Your task to perform on an android device: Open Google Maps and go to "Timeline" Image 0: 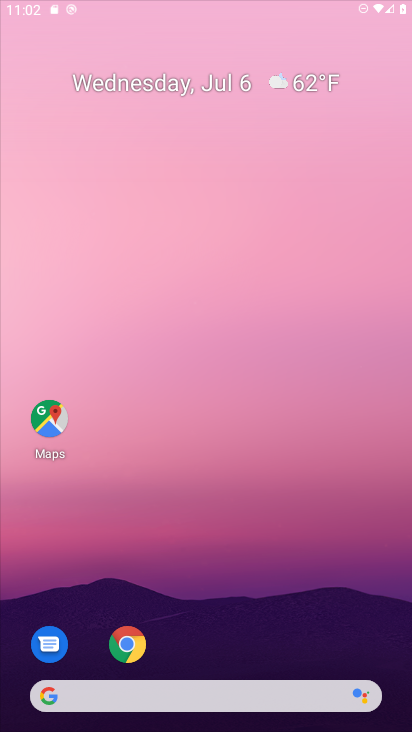
Step 0: press home button
Your task to perform on an android device: Open Google Maps and go to "Timeline" Image 1: 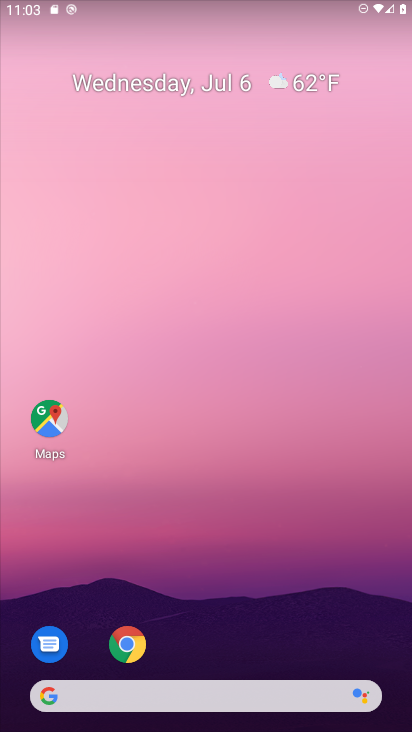
Step 1: drag from (262, 650) to (308, 6)
Your task to perform on an android device: Open Google Maps and go to "Timeline" Image 2: 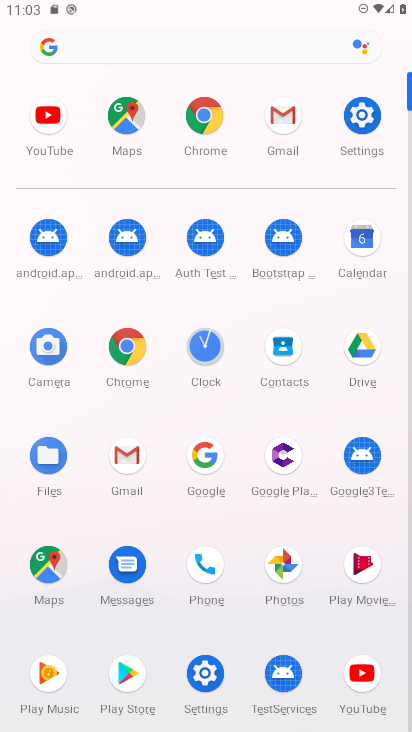
Step 2: click (124, 113)
Your task to perform on an android device: Open Google Maps and go to "Timeline" Image 3: 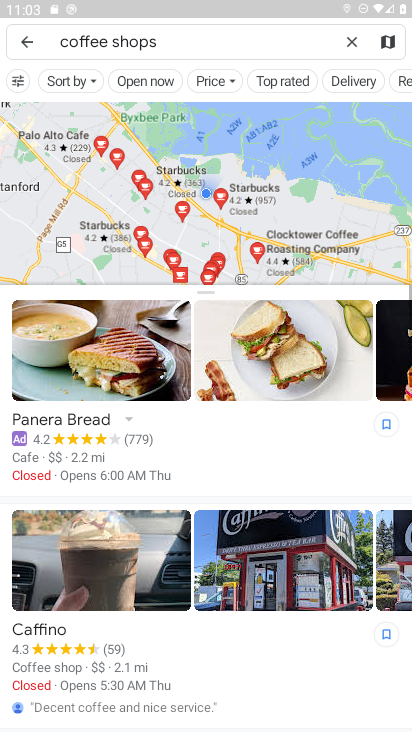
Step 3: click (28, 36)
Your task to perform on an android device: Open Google Maps and go to "Timeline" Image 4: 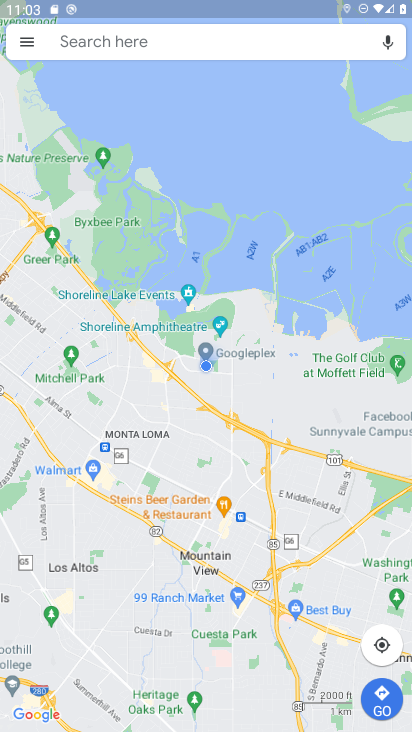
Step 4: click (28, 41)
Your task to perform on an android device: Open Google Maps and go to "Timeline" Image 5: 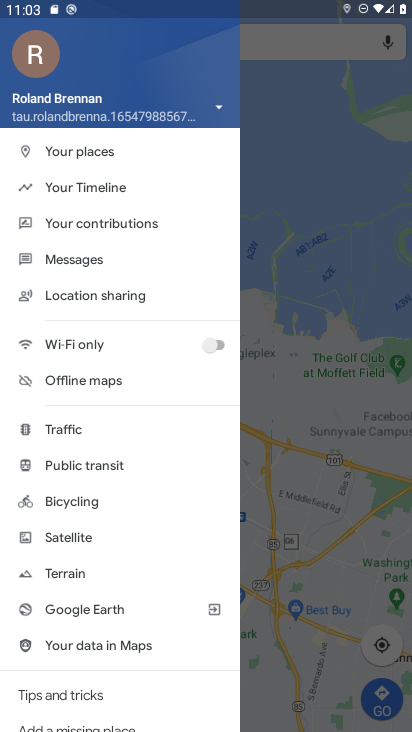
Step 5: click (84, 189)
Your task to perform on an android device: Open Google Maps and go to "Timeline" Image 6: 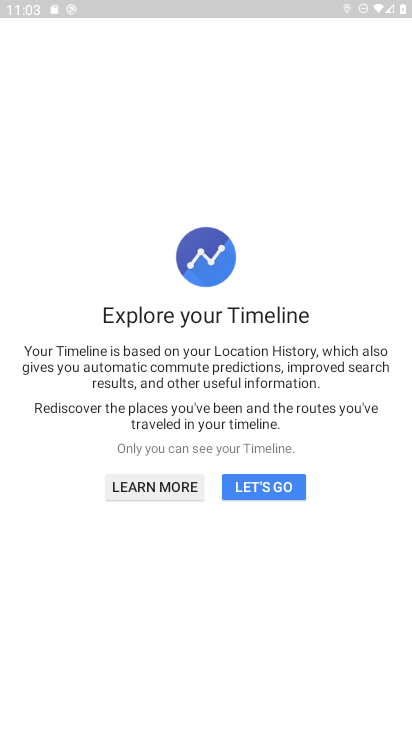
Step 6: click (255, 494)
Your task to perform on an android device: Open Google Maps and go to "Timeline" Image 7: 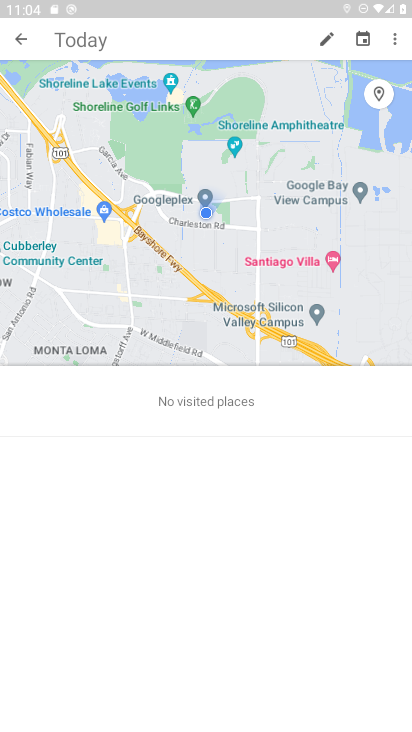
Step 7: task complete